Your task to perform on an android device: turn pop-ups on in chrome Image 0: 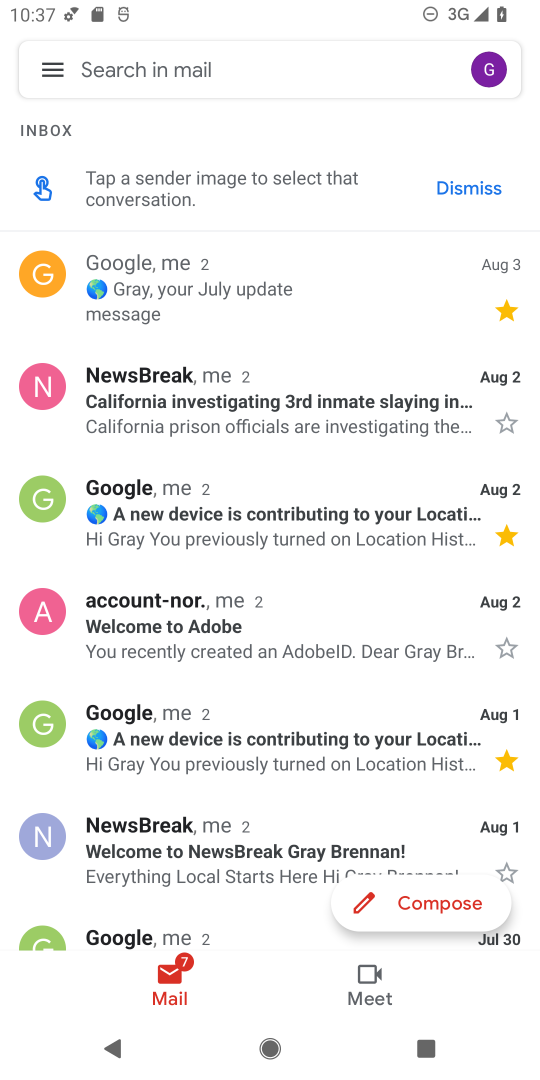
Step 0: press home button
Your task to perform on an android device: turn pop-ups on in chrome Image 1: 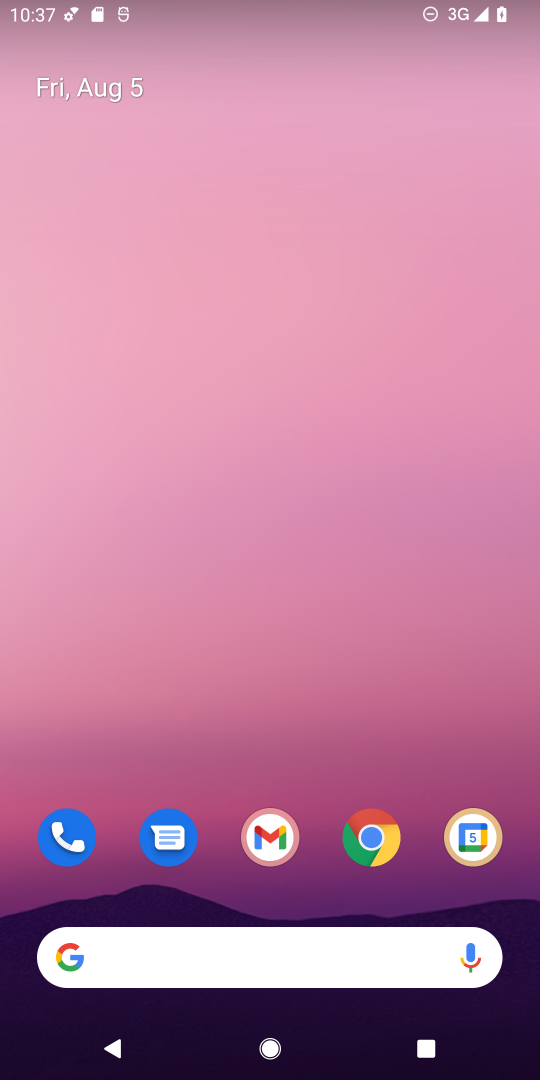
Step 1: click (374, 836)
Your task to perform on an android device: turn pop-ups on in chrome Image 2: 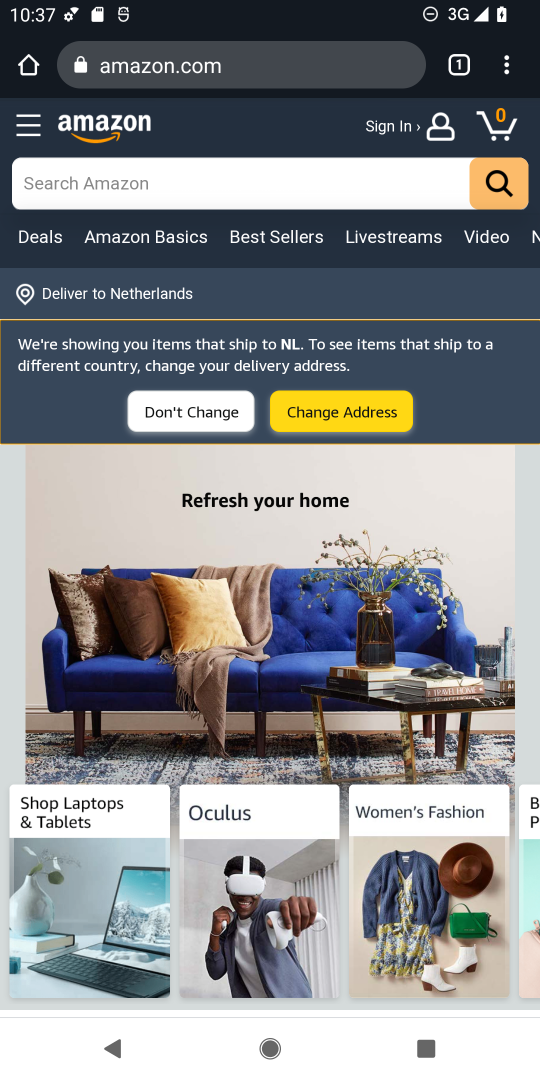
Step 2: click (508, 59)
Your task to perform on an android device: turn pop-ups on in chrome Image 3: 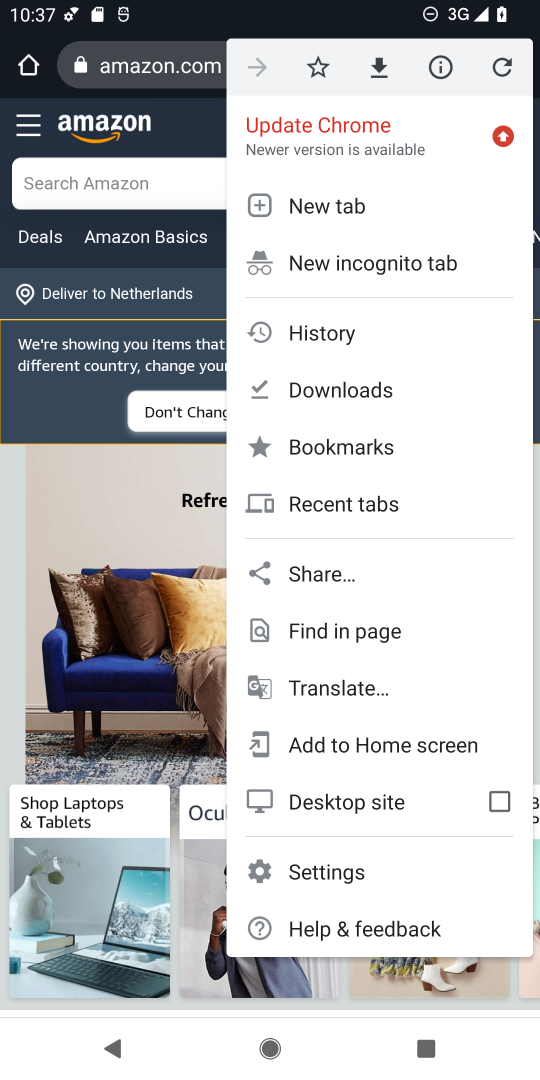
Step 3: click (362, 866)
Your task to perform on an android device: turn pop-ups on in chrome Image 4: 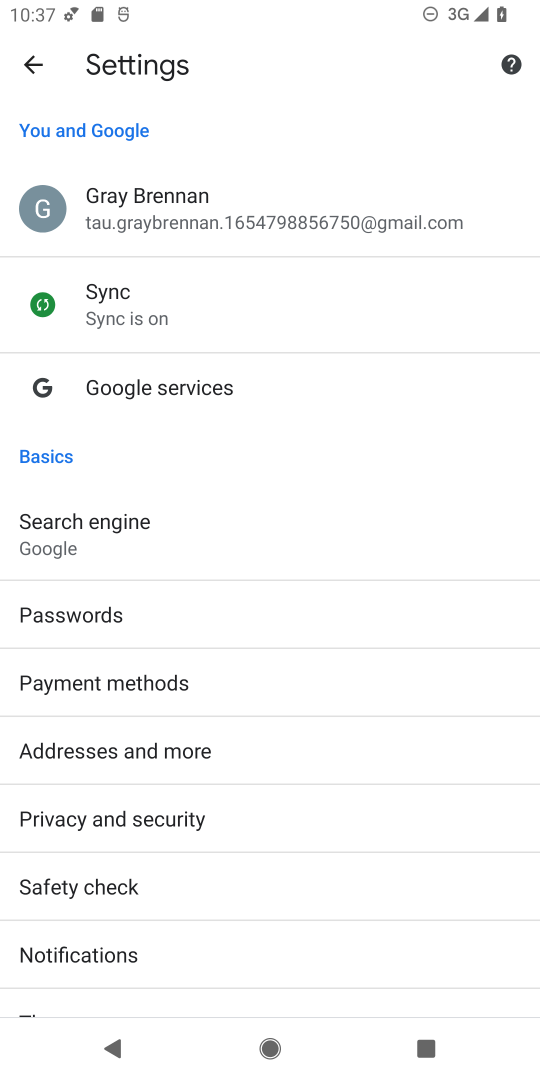
Step 4: drag from (317, 842) to (339, 231)
Your task to perform on an android device: turn pop-ups on in chrome Image 5: 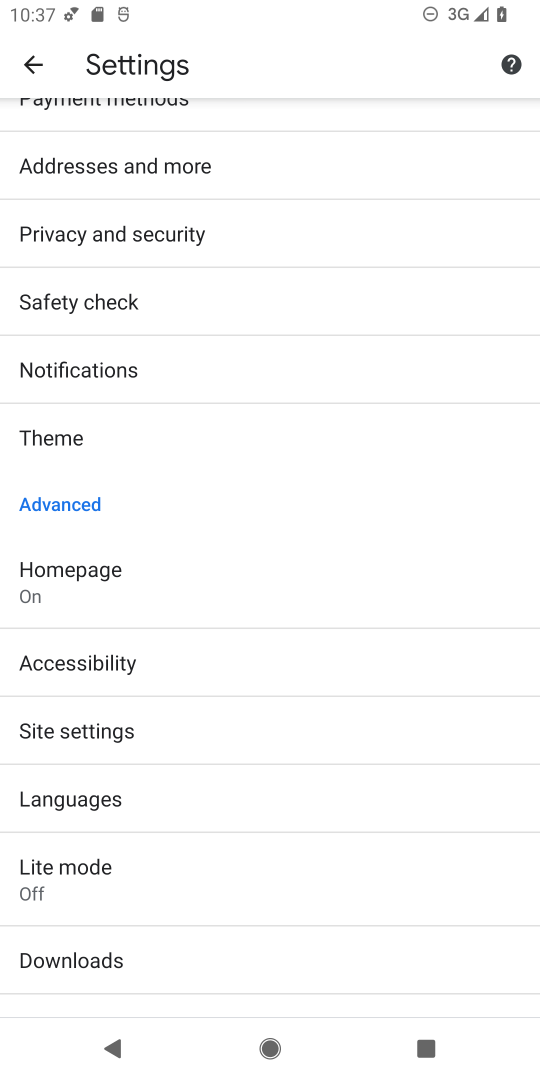
Step 5: click (99, 723)
Your task to perform on an android device: turn pop-ups on in chrome Image 6: 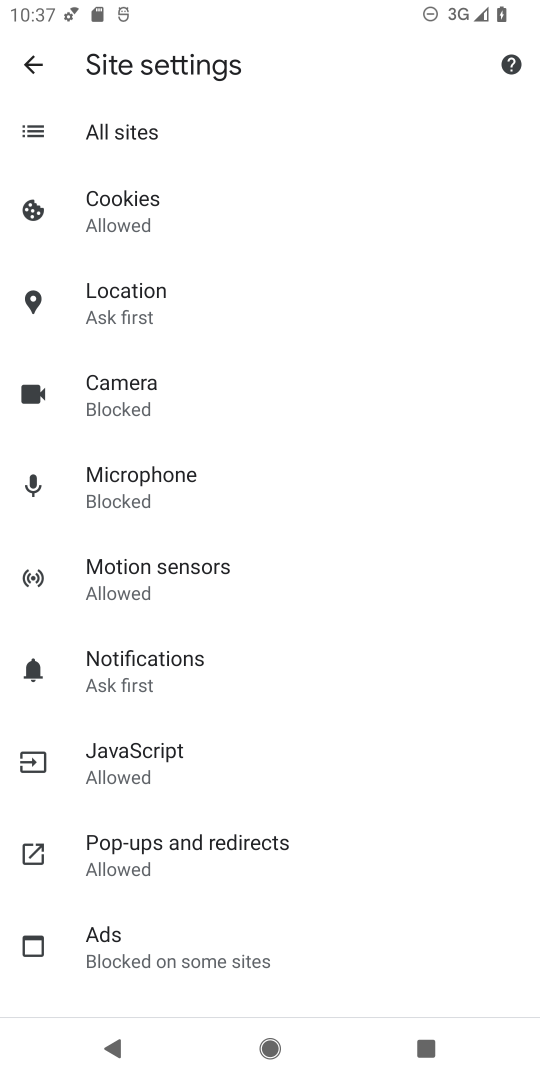
Step 6: click (219, 851)
Your task to perform on an android device: turn pop-ups on in chrome Image 7: 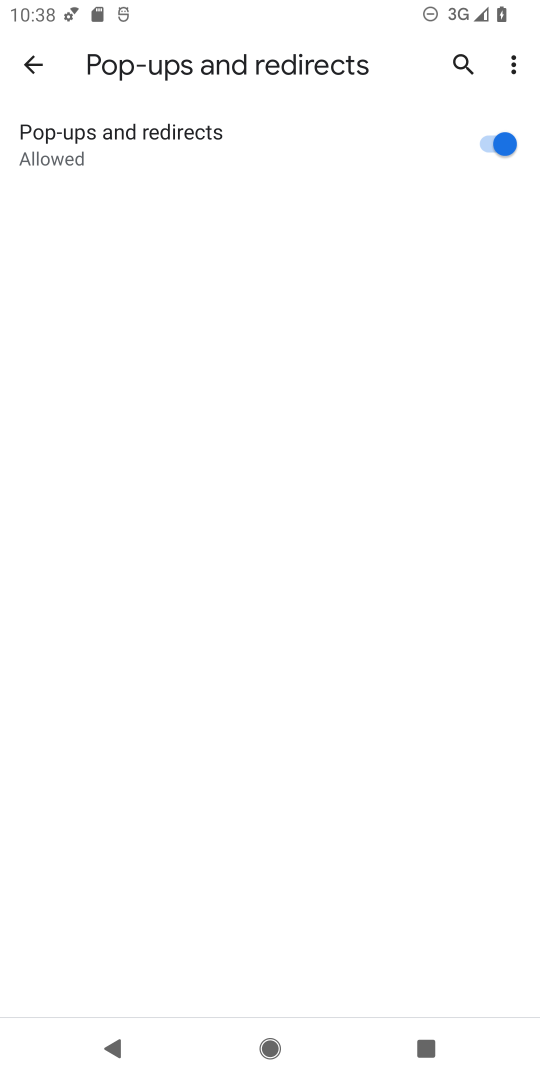
Step 7: task complete